Your task to perform on an android device: turn notification dots off Image 0: 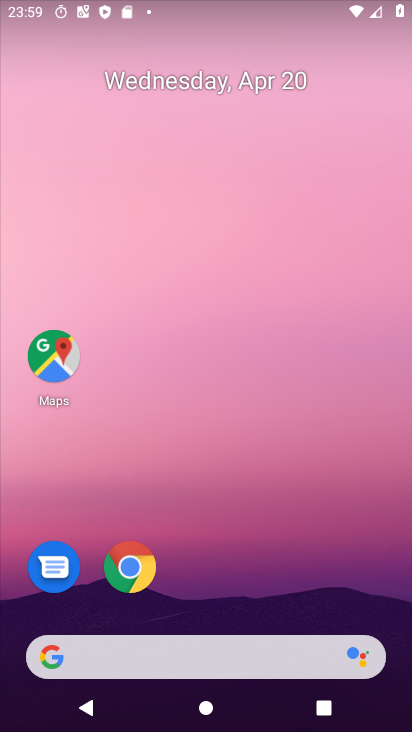
Step 0: drag from (220, 294) to (236, 211)
Your task to perform on an android device: turn notification dots off Image 1: 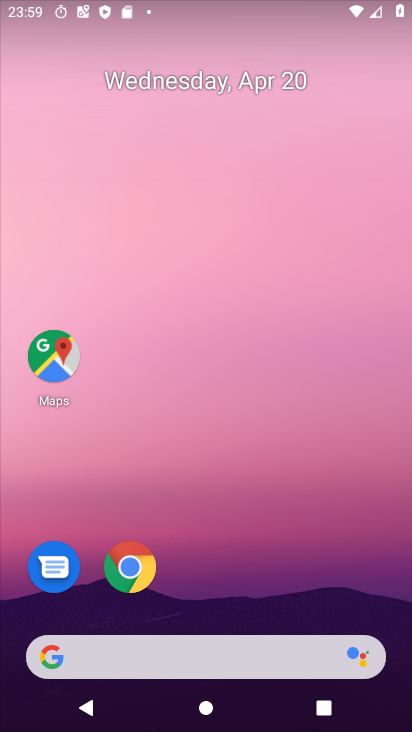
Step 1: drag from (165, 569) to (226, 247)
Your task to perform on an android device: turn notification dots off Image 2: 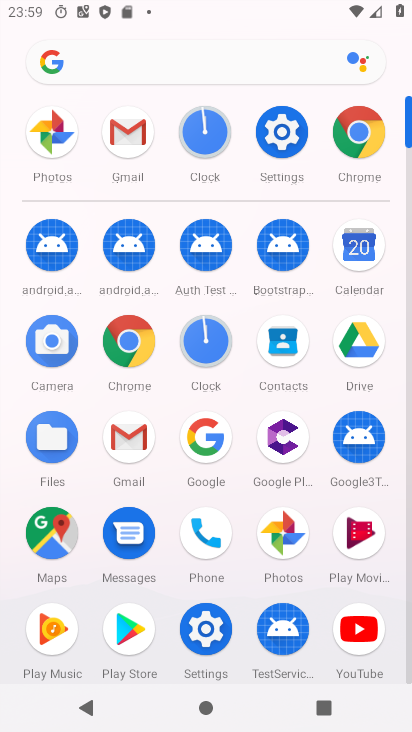
Step 2: click (277, 126)
Your task to perform on an android device: turn notification dots off Image 3: 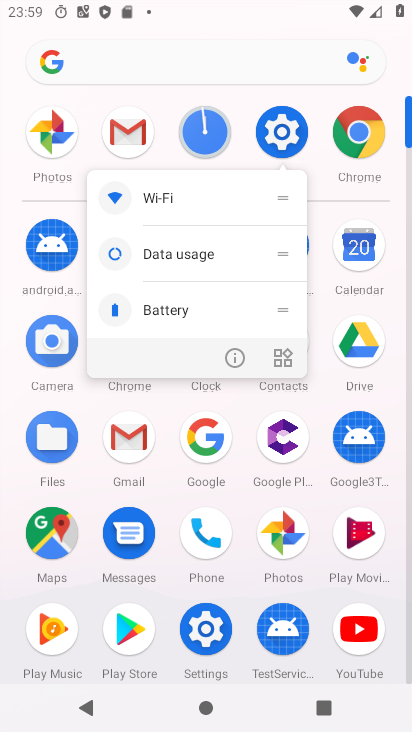
Step 3: click (277, 126)
Your task to perform on an android device: turn notification dots off Image 4: 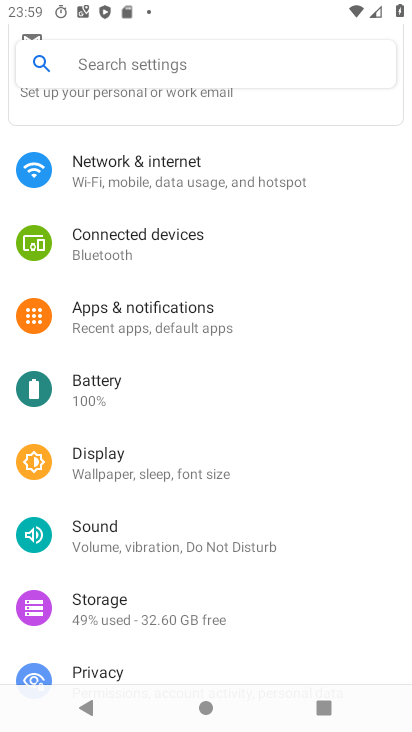
Step 4: click (152, 53)
Your task to perform on an android device: turn notification dots off Image 5: 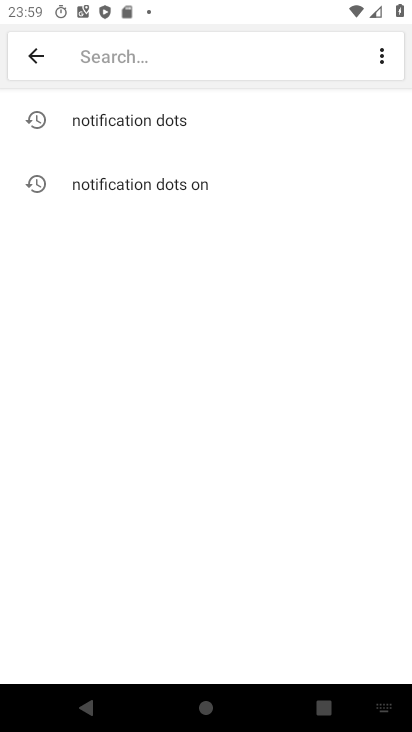
Step 5: click (164, 113)
Your task to perform on an android device: turn notification dots off Image 6: 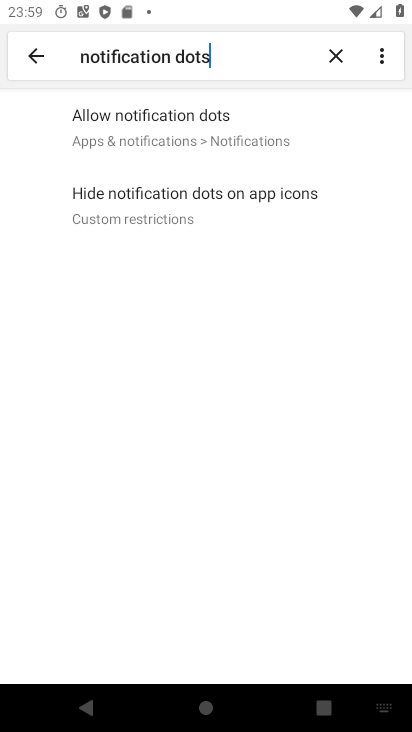
Step 6: click (204, 131)
Your task to perform on an android device: turn notification dots off Image 7: 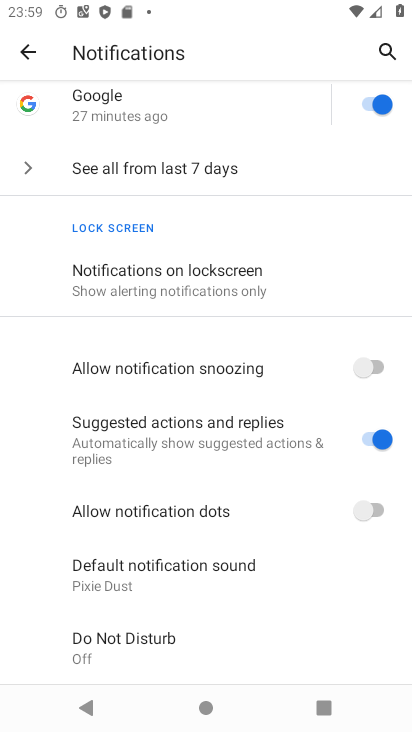
Step 7: task complete